Your task to perform on an android device: See recent photos Image 0: 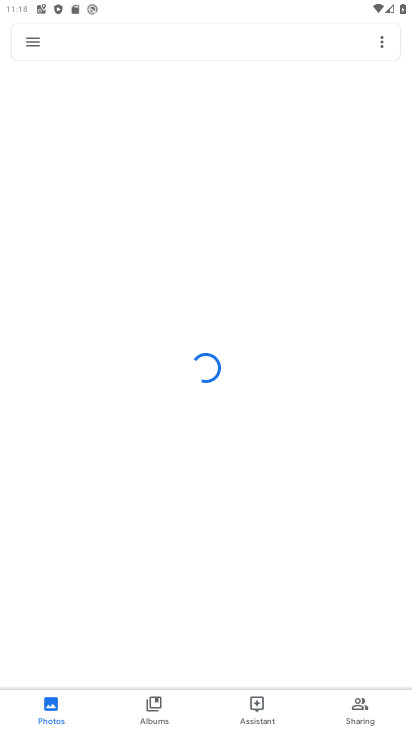
Step 0: press home button
Your task to perform on an android device: See recent photos Image 1: 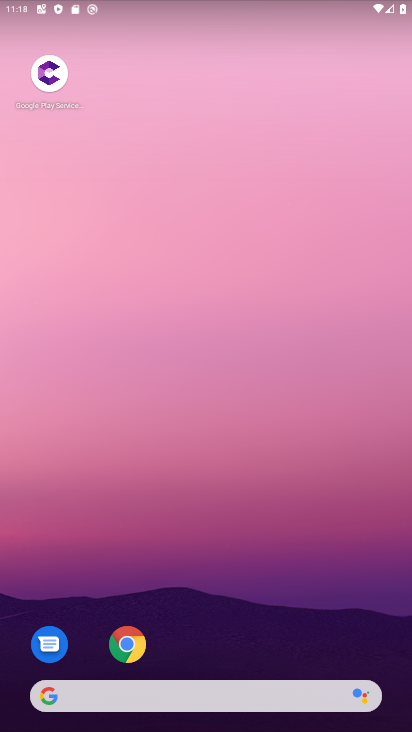
Step 1: drag from (185, 688) to (195, 185)
Your task to perform on an android device: See recent photos Image 2: 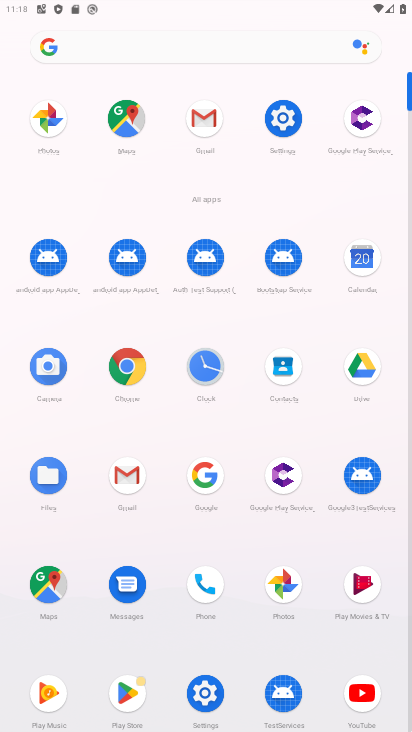
Step 2: click (296, 577)
Your task to perform on an android device: See recent photos Image 3: 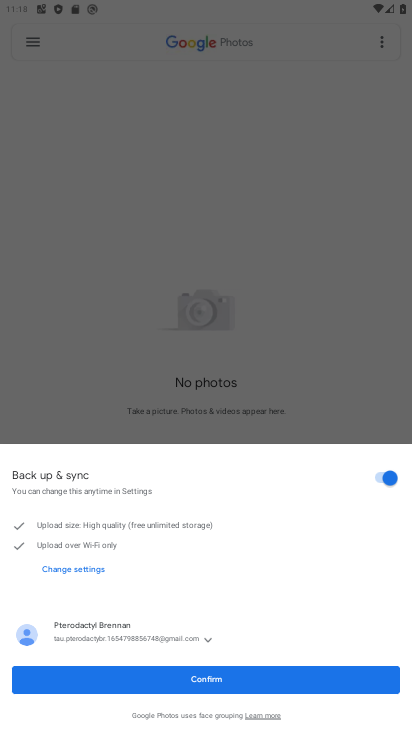
Step 3: click (188, 677)
Your task to perform on an android device: See recent photos Image 4: 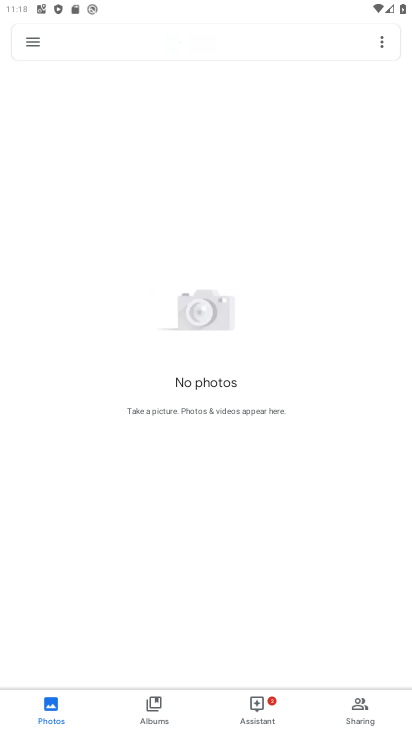
Step 4: task complete